Your task to perform on an android device: change the clock display to digital Image 0: 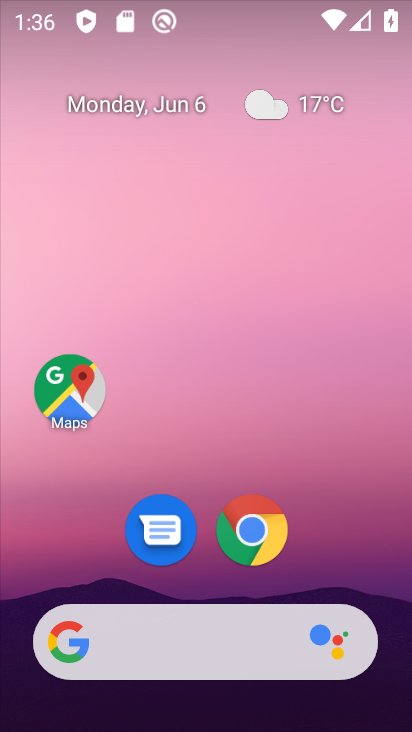
Step 0: drag from (298, 558) to (255, 162)
Your task to perform on an android device: change the clock display to digital Image 1: 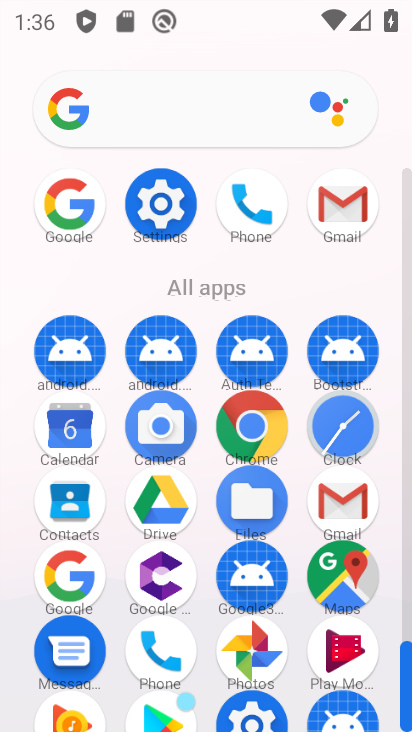
Step 1: click (331, 424)
Your task to perform on an android device: change the clock display to digital Image 2: 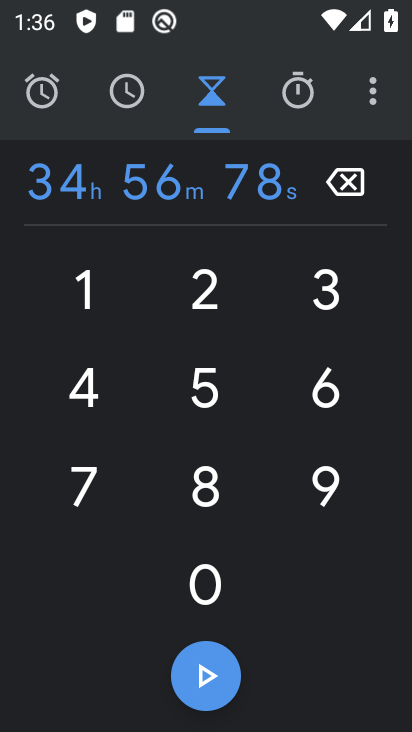
Step 2: click (366, 70)
Your task to perform on an android device: change the clock display to digital Image 3: 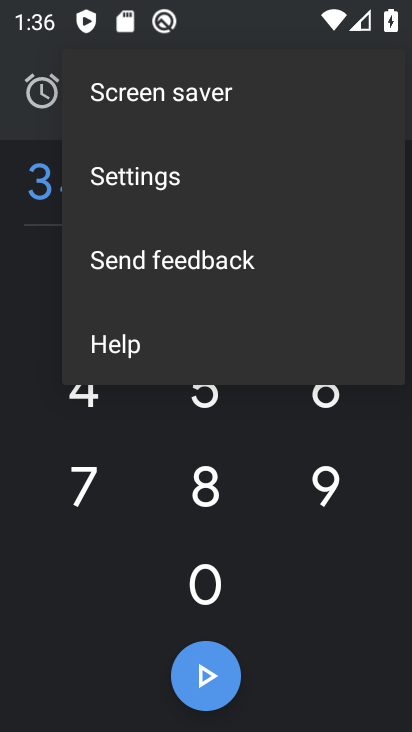
Step 3: click (168, 163)
Your task to perform on an android device: change the clock display to digital Image 4: 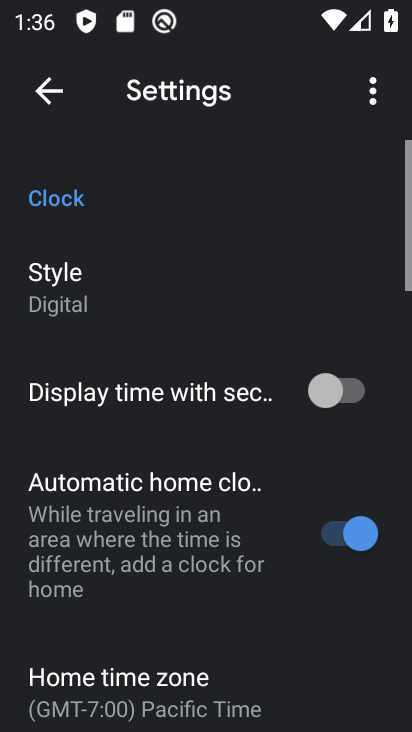
Step 4: click (97, 279)
Your task to perform on an android device: change the clock display to digital Image 5: 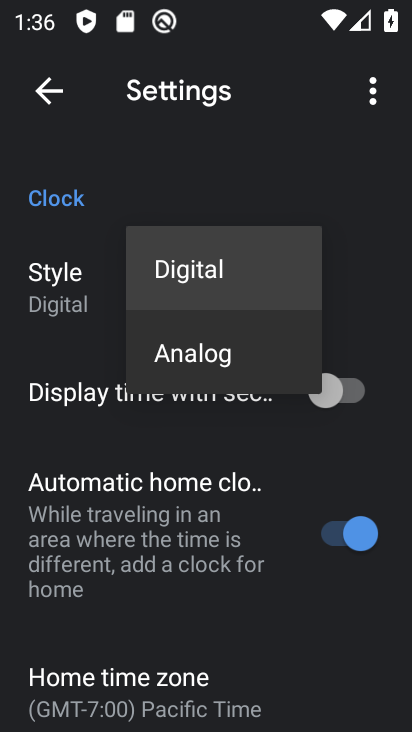
Step 5: click (190, 349)
Your task to perform on an android device: change the clock display to digital Image 6: 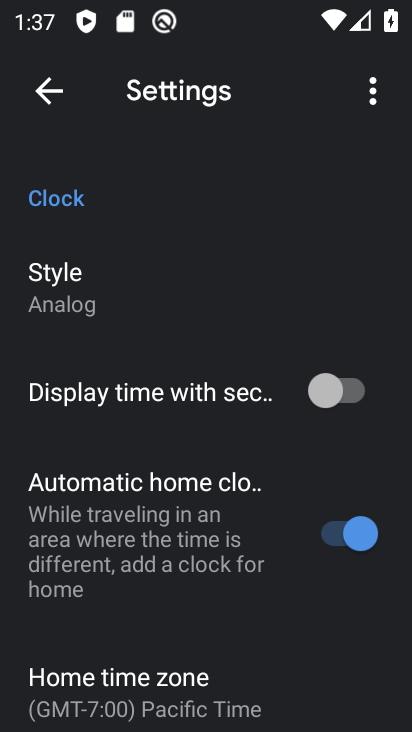
Step 6: task complete